Your task to perform on an android device: Show the shopping cart on target. Search for "dell xps" on target, select the first entry, add it to the cart, then select checkout. Image 0: 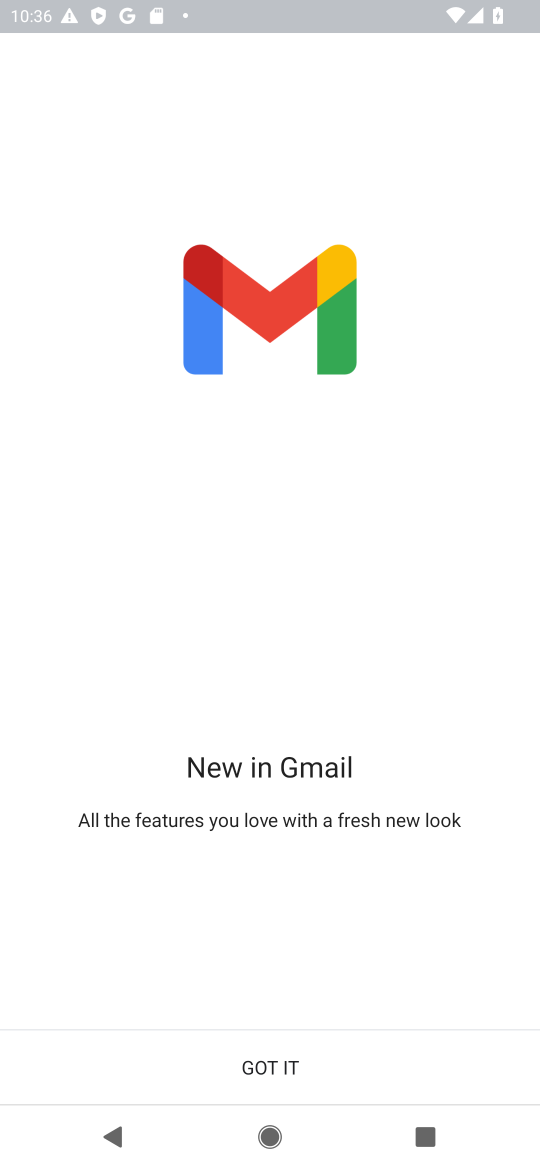
Step 0: press home button
Your task to perform on an android device: Show the shopping cart on target. Search for "dell xps" on target, select the first entry, add it to the cart, then select checkout. Image 1: 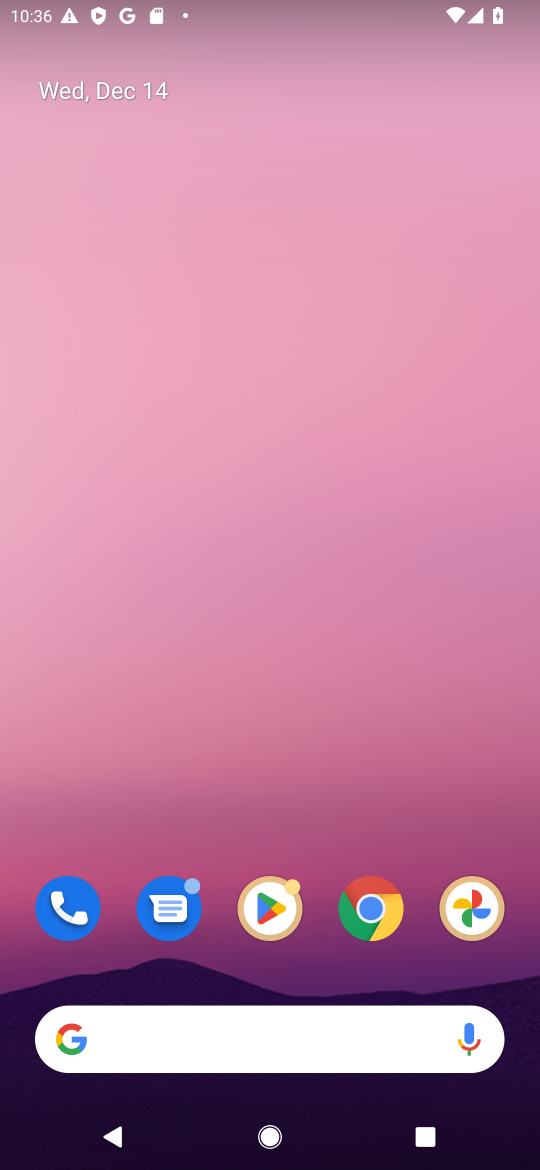
Step 1: click (325, 1047)
Your task to perform on an android device: Show the shopping cart on target. Search for "dell xps" on target, select the first entry, add it to the cart, then select checkout. Image 2: 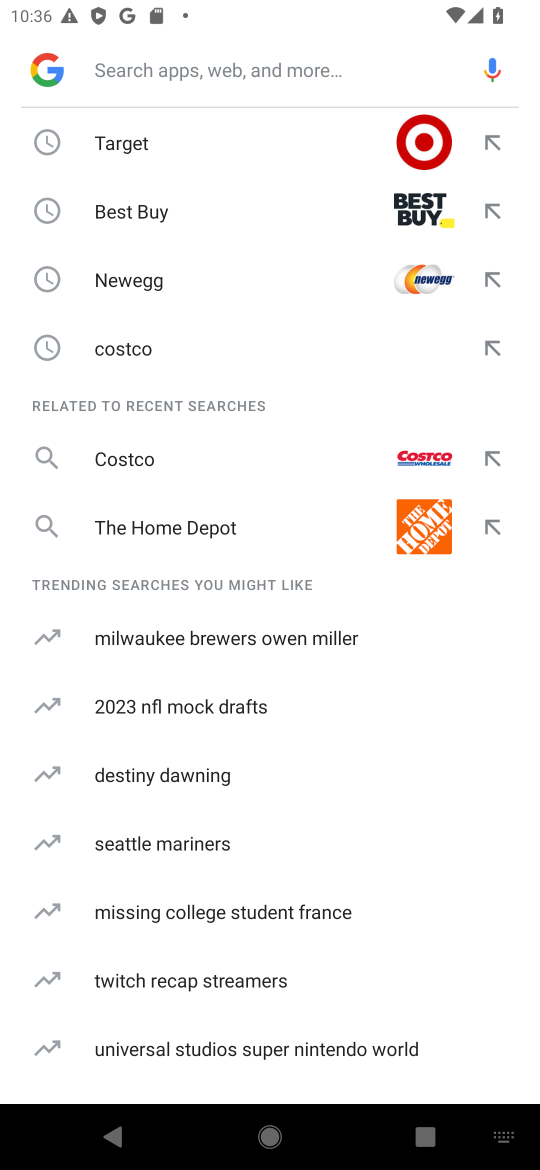
Step 2: click (118, 153)
Your task to perform on an android device: Show the shopping cart on target. Search for "dell xps" on target, select the first entry, add it to the cart, then select checkout. Image 3: 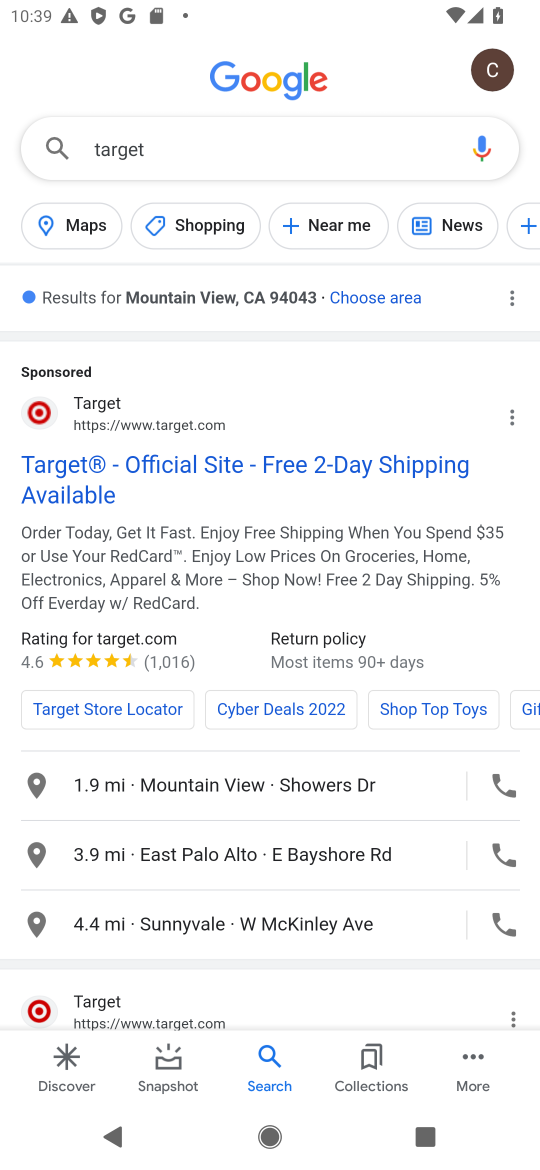
Step 3: click (154, 411)
Your task to perform on an android device: Show the shopping cart on target. Search for "dell xps" on target, select the first entry, add it to the cart, then select checkout. Image 4: 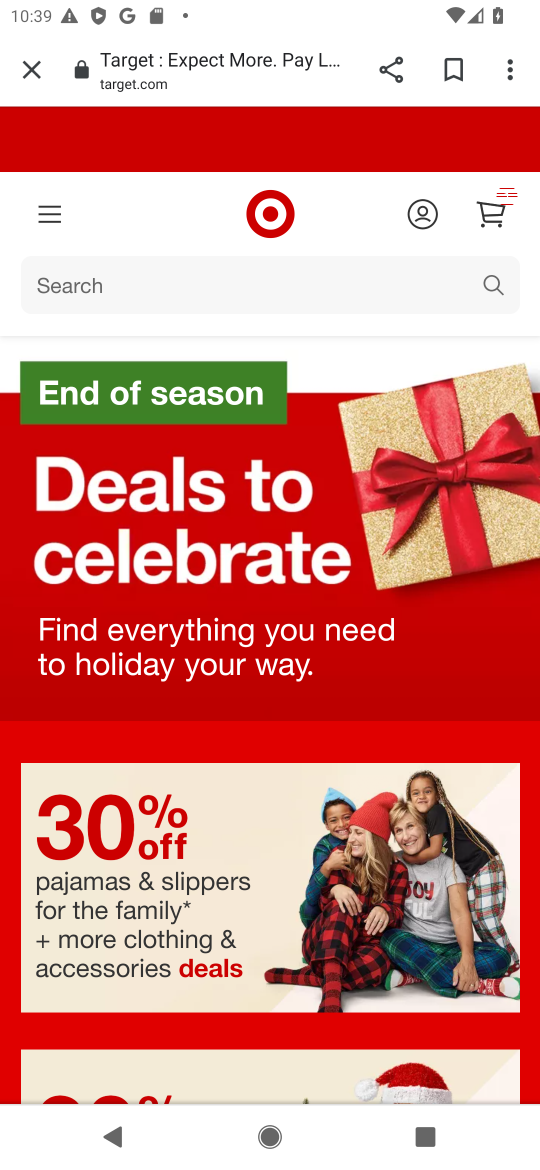
Step 4: click (246, 282)
Your task to perform on an android device: Show the shopping cart on target. Search for "dell xps" on target, select the first entry, add it to the cart, then select checkout. Image 5: 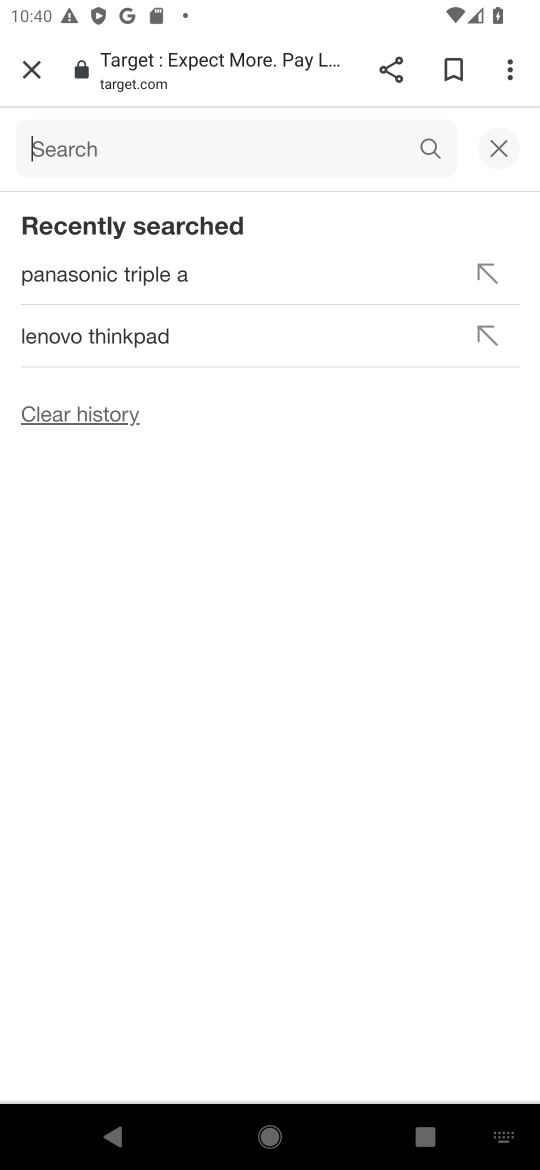
Step 5: type "dell xps"
Your task to perform on an android device: Show the shopping cart on target. Search for "dell xps" on target, select the first entry, add it to the cart, then select checkout. Image 6: 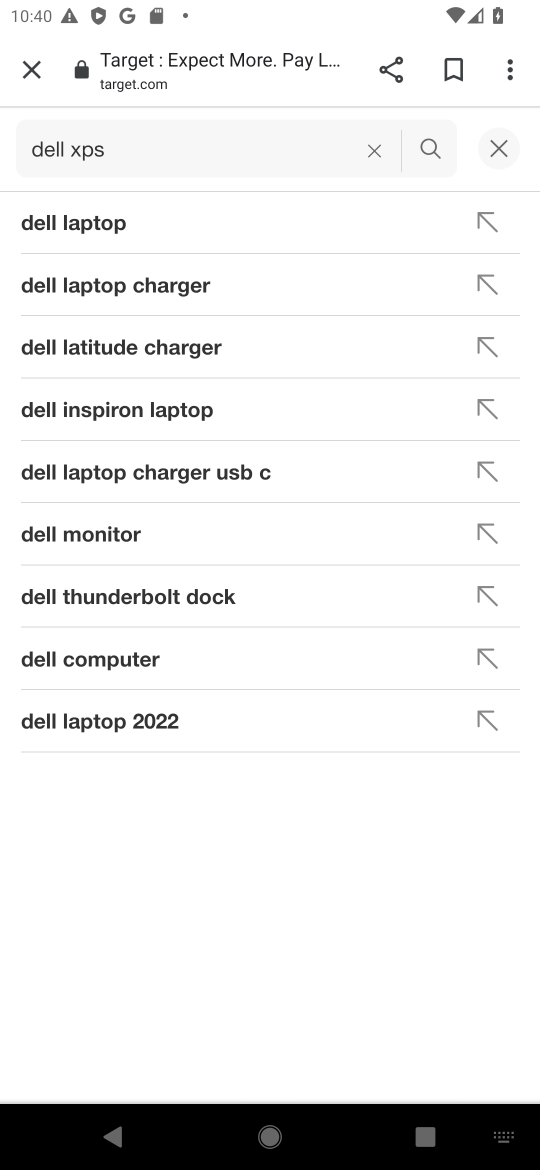
Step 6: click (429, 161)
Your task to perform on an android device: Show the shopping cart on target. Search for "dell xps" on target, select the first entry, add it to the cart, then select checkout. Image 7: 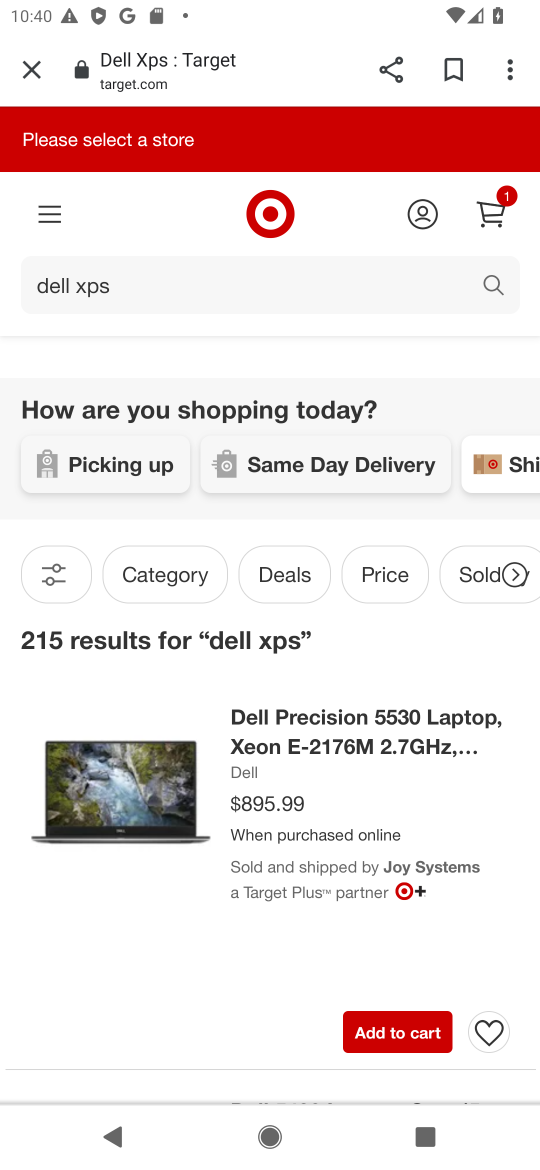
Step 7: click (386, 1049)
Your task to perform on an android device: Show the shopping cart on target. Search for "dell xps" on target, select the first entry, add it to the cart, then select checkout. Image 8: 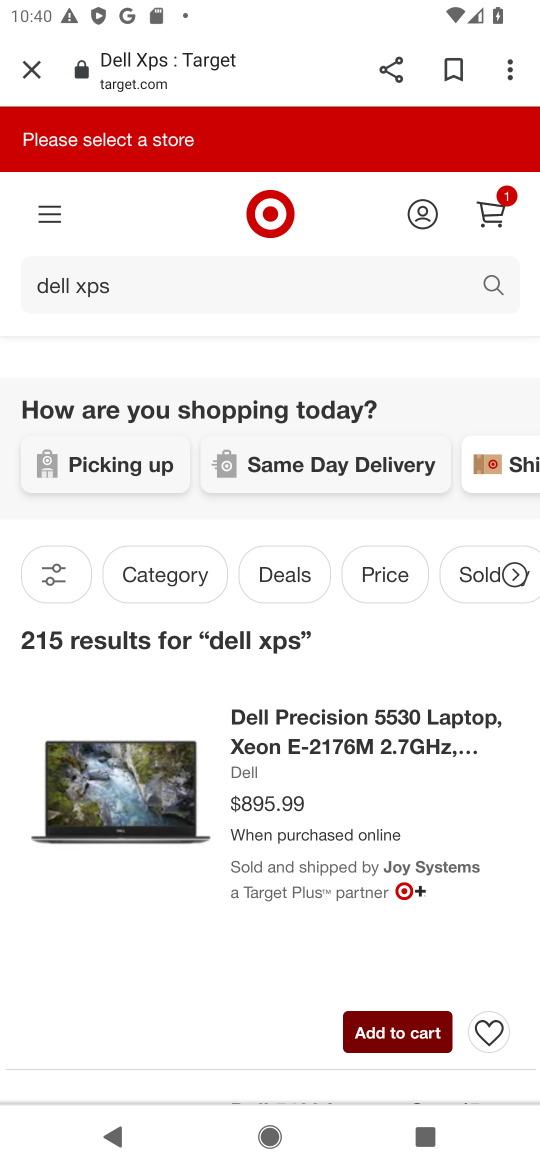
Step 8: task complete